Your task to perform on an android device: Open the stopwatch Image 0: 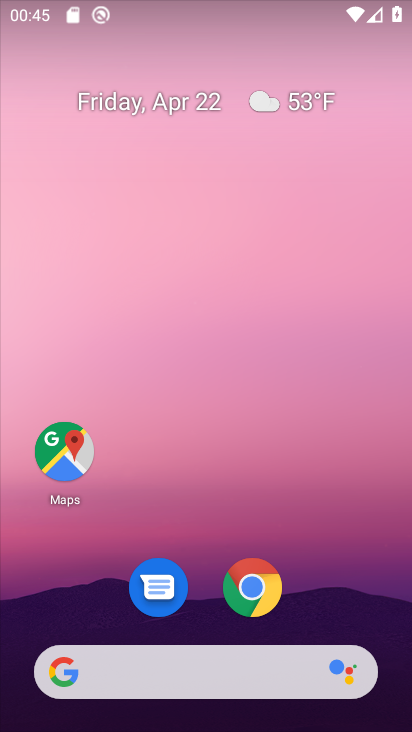
Step 0: press home button
Your task to perform on an android device: Open the stopwatch Image 1: 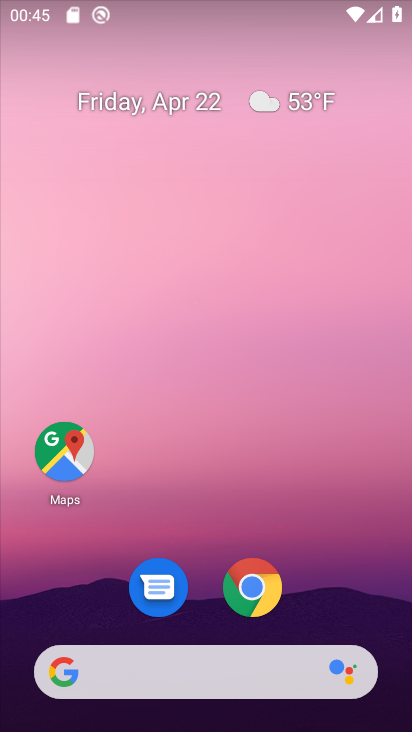
Step 1: drag from (335, 594) to (339, 201)
Your task to perform on an android device: Open the stopwatch Image 2: 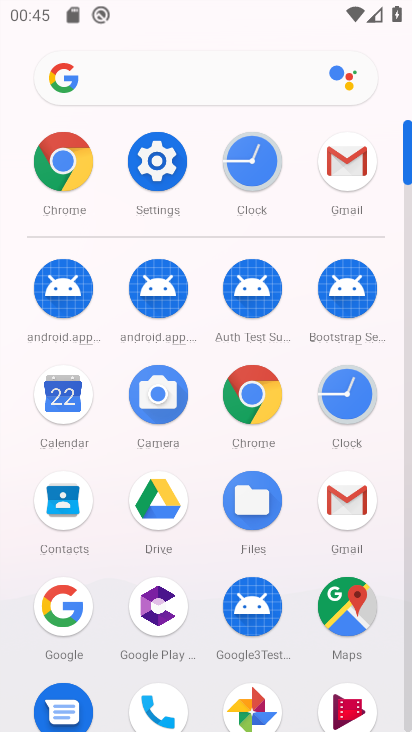
Step 2: click (356, 405)
Your task to perform on an android device: Open the stopwatch Image 3: 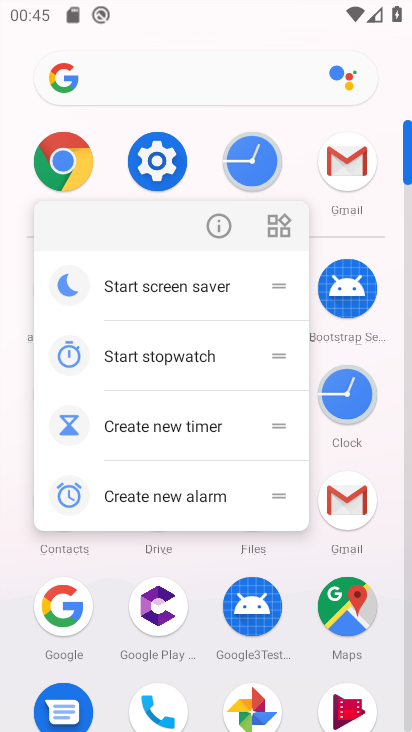
Step 3: click (356, 406)
Your task to perform on an android device: Open the stopwatch Image 4: 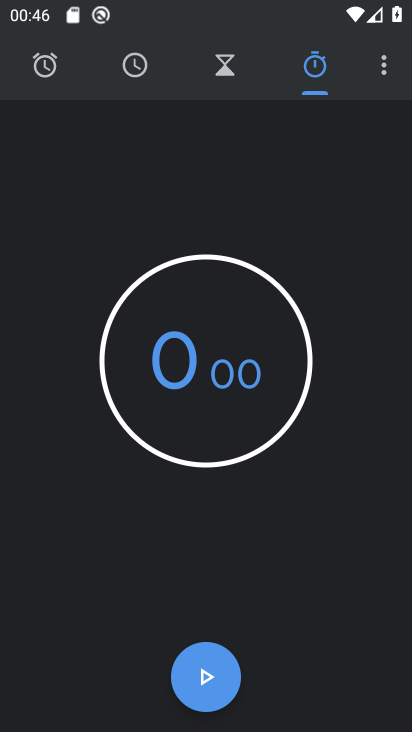
Step 4: click (218, 690)
Your task to perform on an android device: Open the stopwatch Image 5: 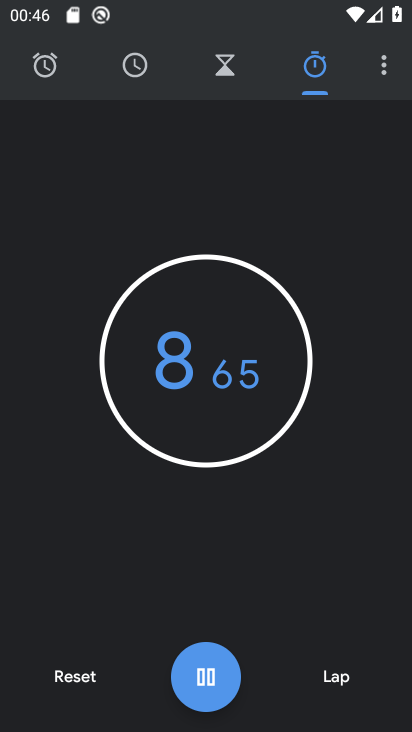
Step 5: task complete